Your task to perform on an android device: Search for Mexican restaurants on Maps Image 0: 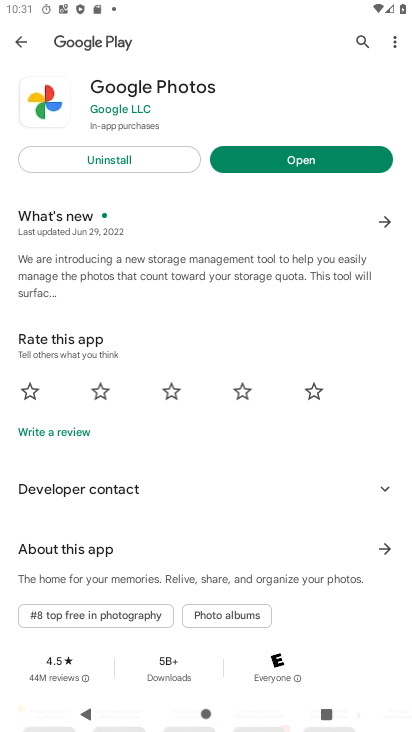
Step 0: press home button
Your task to perform on an android device: Search for Mexican restaurants on Maps Image 1: 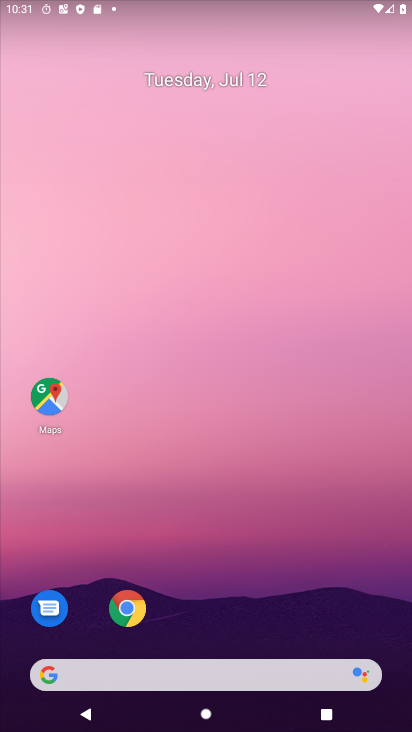
Step 1: click (47, 403)
Your task to perform on an android device: Search for Mexican restaurants on Maps Image 2: 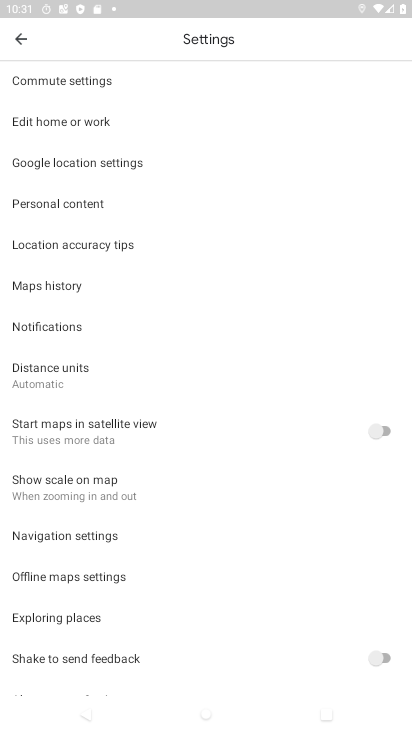
Step 2: click (18, 41)
Your task to perform on an android device: Search for Mexican restaurants on Maps Image 3: 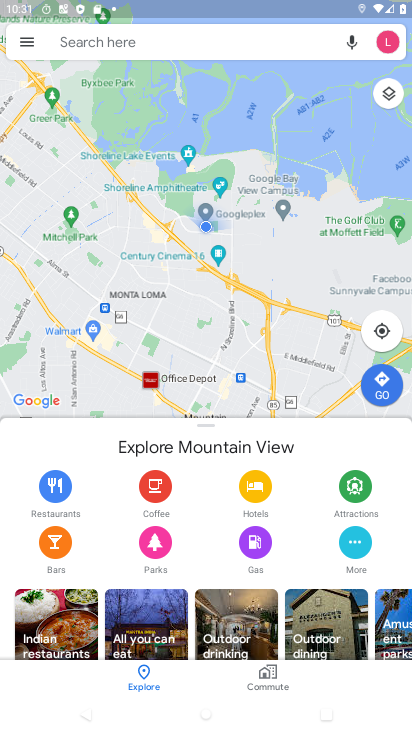
Step 3: click (184, 44)
Your task to perform on an android device: Search for Mexican restaurants on Maps Image 4: 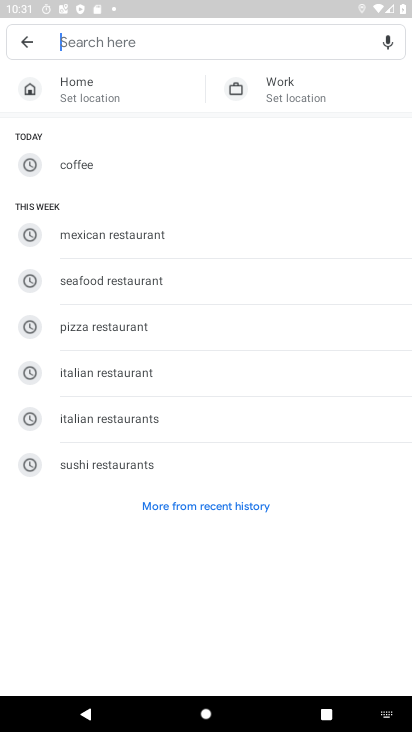
Step 4: type "maxican restaurants"
Your task to perform on an android device: Search for Mexican restaurants on Maps Image 5: 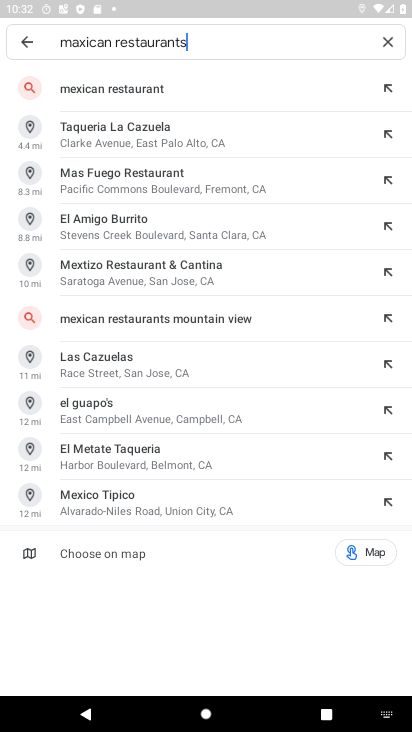
Step 5: click (96, 93)
Your task to perform on an android device: Search for Mexican restaurants on Maps Image 6: 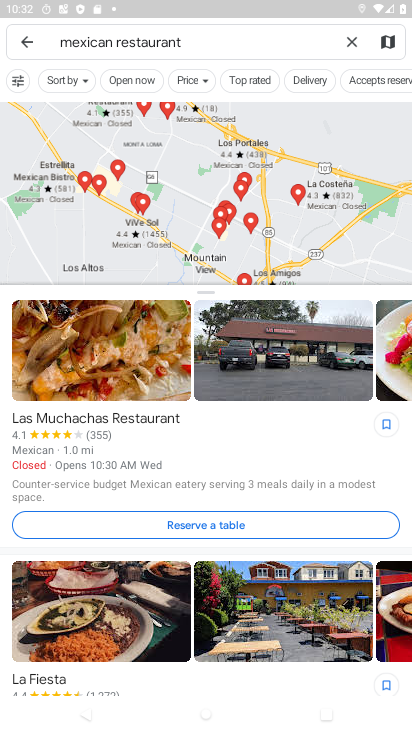
Step 6: task complete